Your task to perform on an android device: turn off airplane mode Image 0: 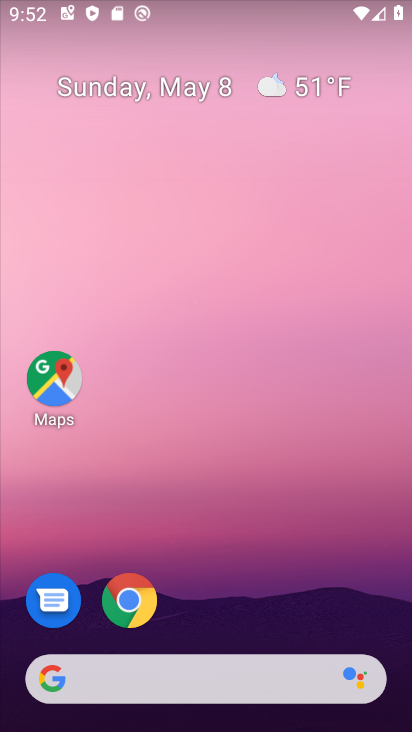
Step 0: drag from (251, 572) to (168, 19)
Your task to perform on an android device: turn off airplane mode Image 1: 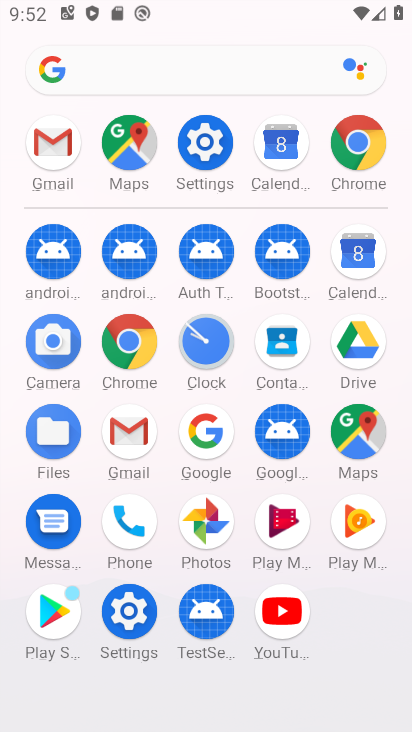
Step 1: drag from (15, 594) to (3, 281)
Your task to perform on an android device: turn off airplane mode Image 2: 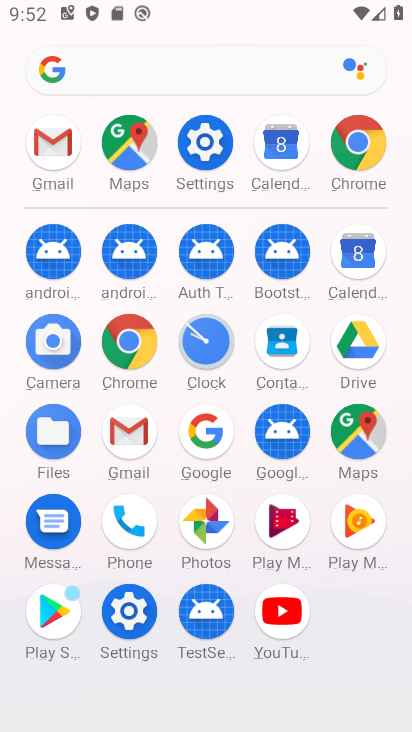
Step 2: click (202, 139)
Your task to perform on an android device: turn off airplane mode Image 3: 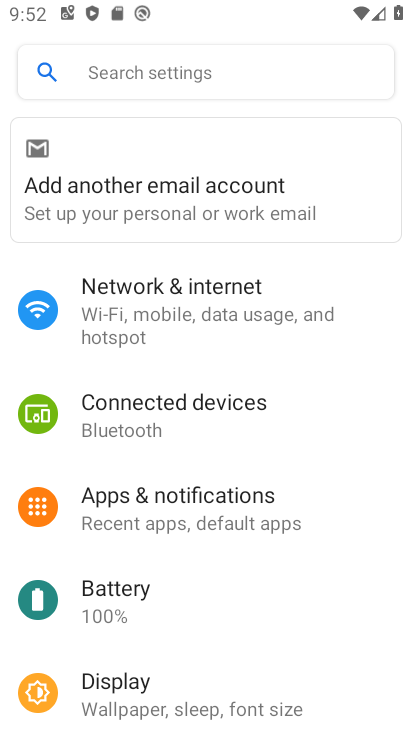
Step 3: click (241, 306)
Your task to perform on an android device: turn off airplane mode Image 4: 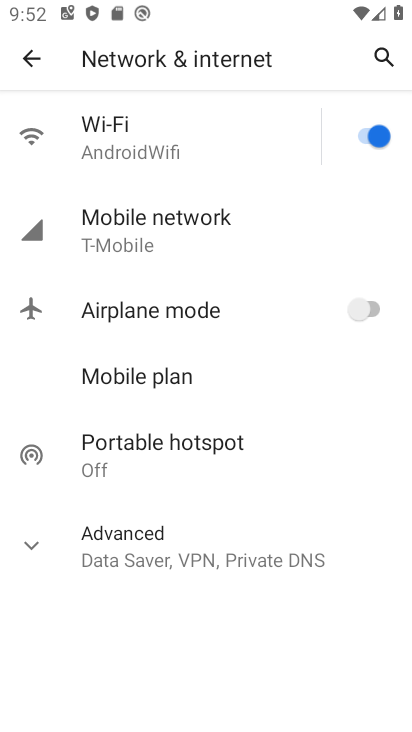
Step 4: click (57, 540)
Your task to perform on an android device: turn off airplane mode Image 5: 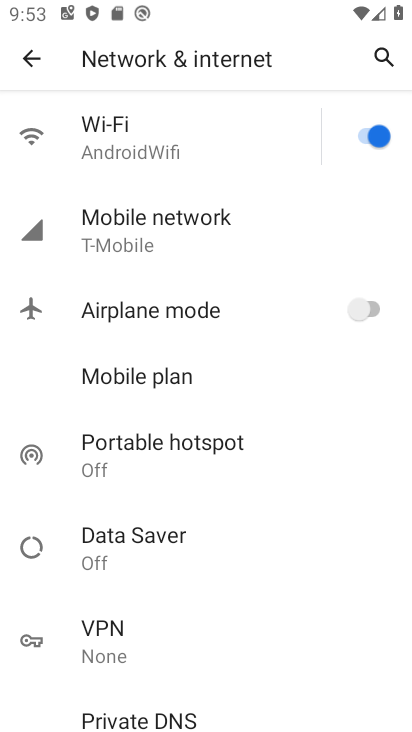
Step 5: task complete